Your task to perform on an android device: toggle notification dots Image 0: 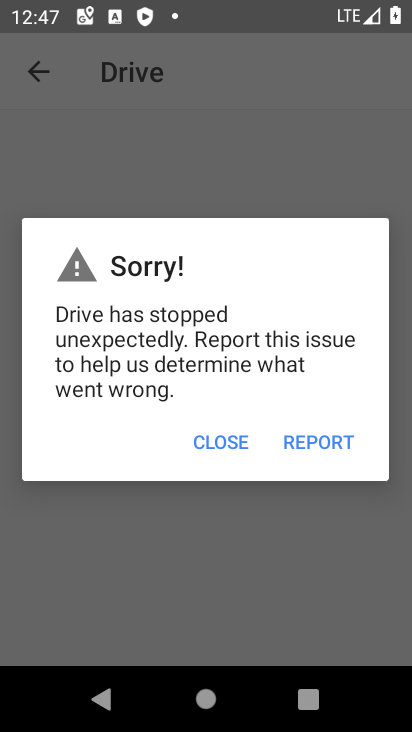
Step 0: press home button
Your task to perform on an android device: toggle notification dots Image 1: 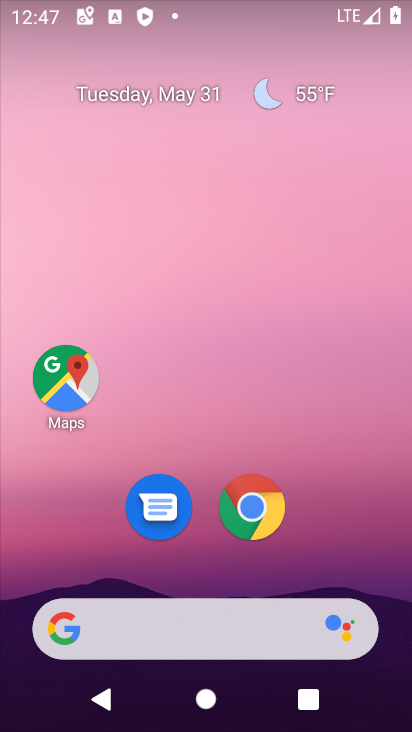
Step 1: drag from (396, 625) to (234, 81)
Your task to perform on an android device: toggle notification dots Image 2: 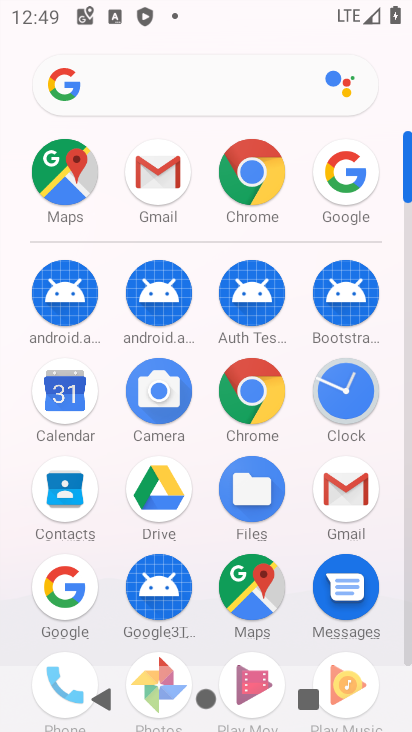
Step 2: drag from (205, 605) to (263, 50)
Your task to perform on an android device: toggle notification dots Image 3: 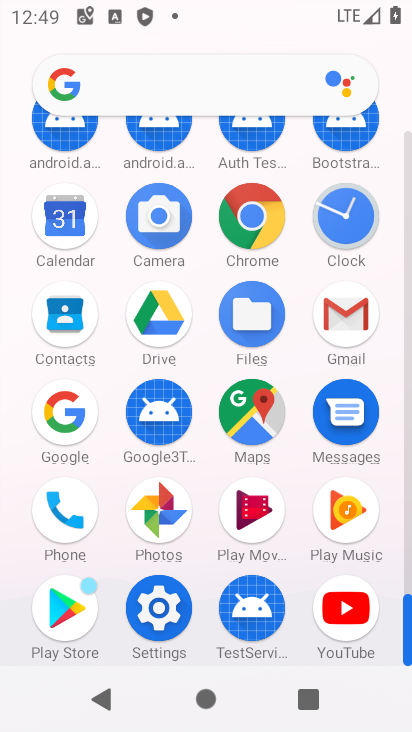
Step 3: click (161, 629)
Your task to perform on an android device: toggle notification dots Image 4: 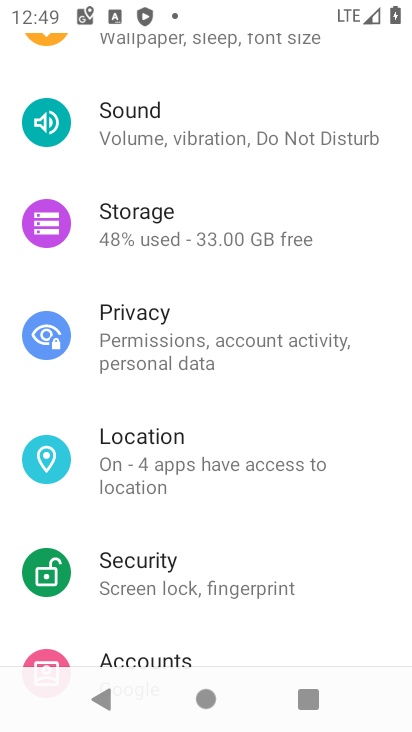
Step 4: drag from (195, 108) to (224, 539)
Your task to perform on an android device: toggle notification dots Image 5: 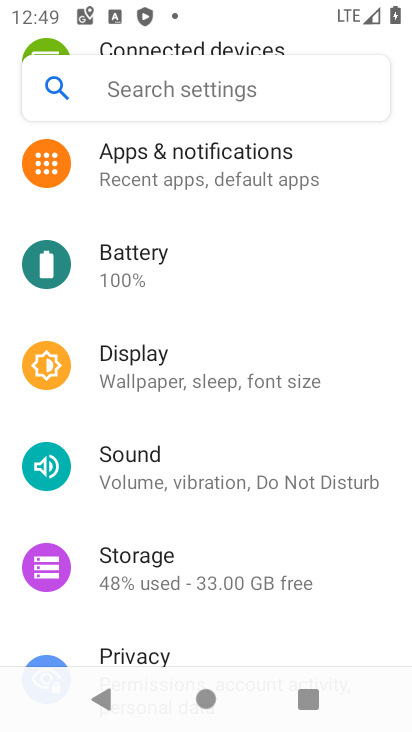
Step 5: click (240, 190)
Your task to perform on an android device: toggle notification dots Image 6: 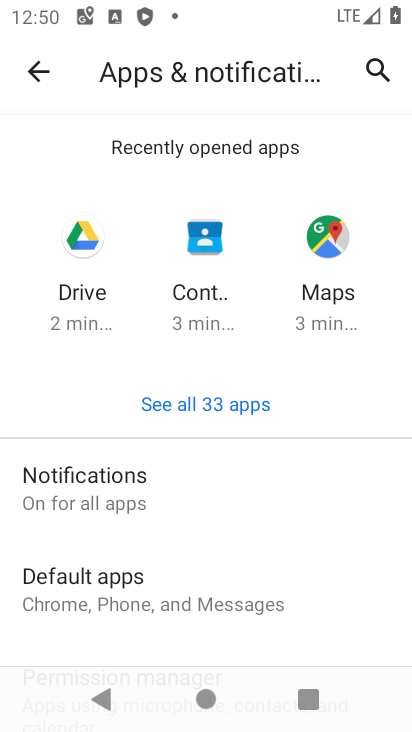
Step 6: click (86, 515)
Your task to perform on an android device: toggle notification dots Image 7: 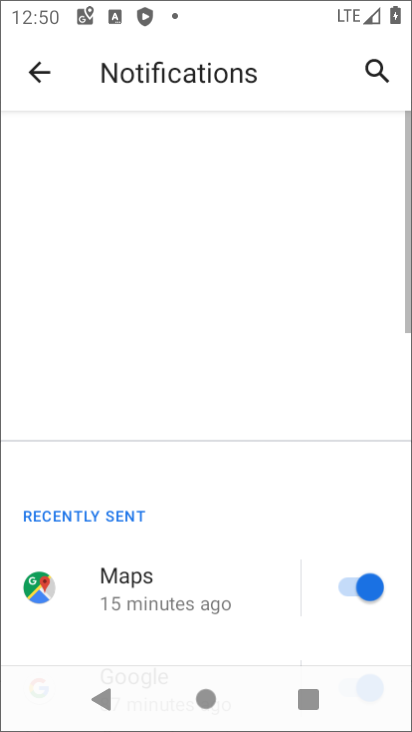
Step 7: drag from (169, 605) to (125, 16)
Your task to perform on an android device: toggle notification dots Image 8: 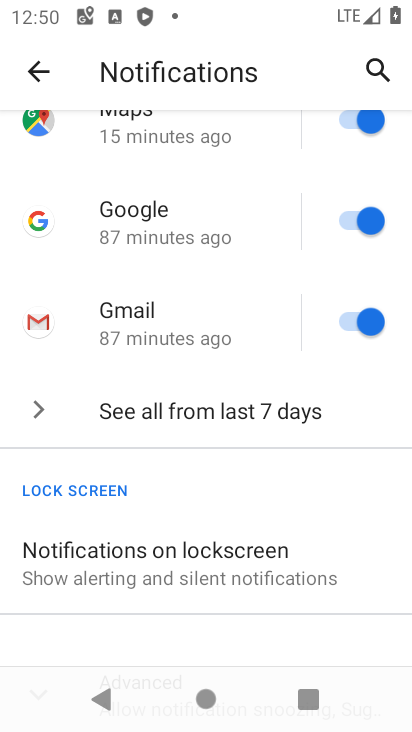
Step 8: drag from (160, 610) to (135, 67)
Your task to perform on an android device: toggle notification dots Image 9: 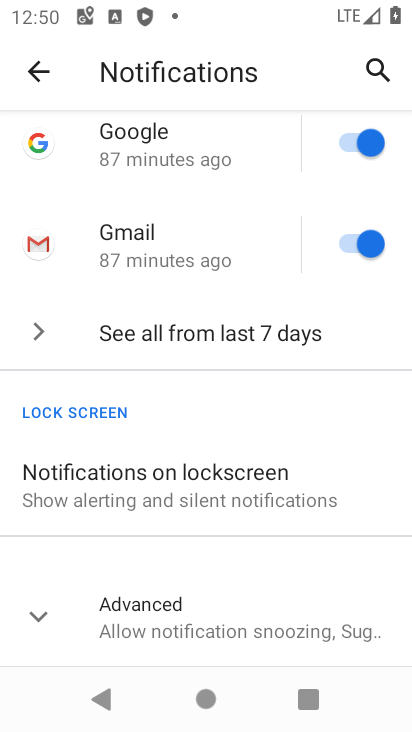
Step 9: click (163, 601)
Your task to perform on an android device: toggle notification dots Image 10: 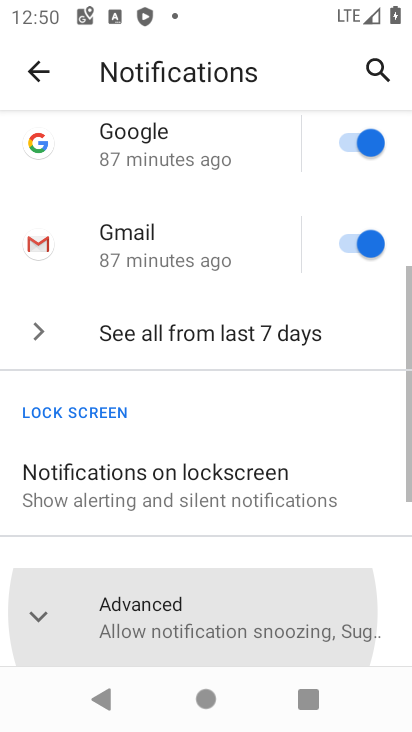
Step 10: drag from (160, 634) to (153, 72)
Your task to perform on an android device: toggle notification dots Image 11: 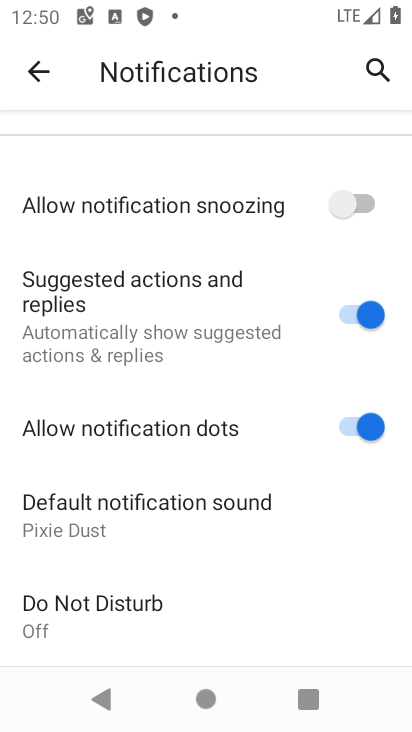
Step 11: click (304, 423)
Your task to perform on an android device: toggle notification dots Image 12: 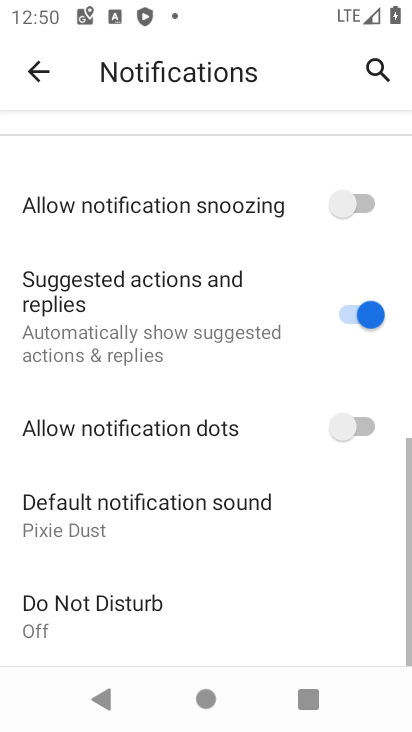
Step 12: task complete